Your task to perform on an android device: Search for sushi restaurants on Maps Image 0: 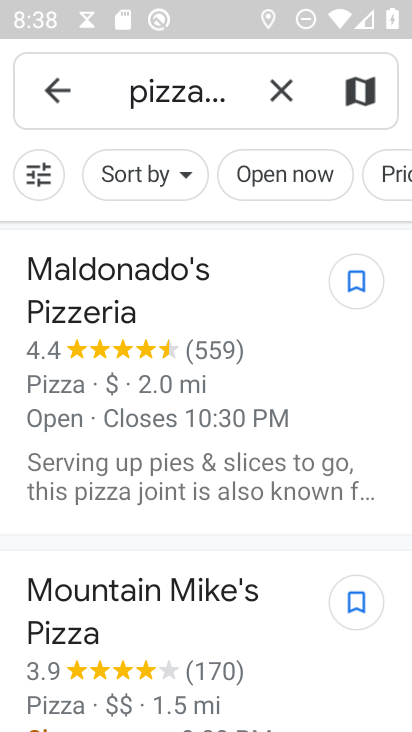
Step 0: click (287, 83)
Your task to perform on an android device: Search for sushi restaurants on Maps Image 1: 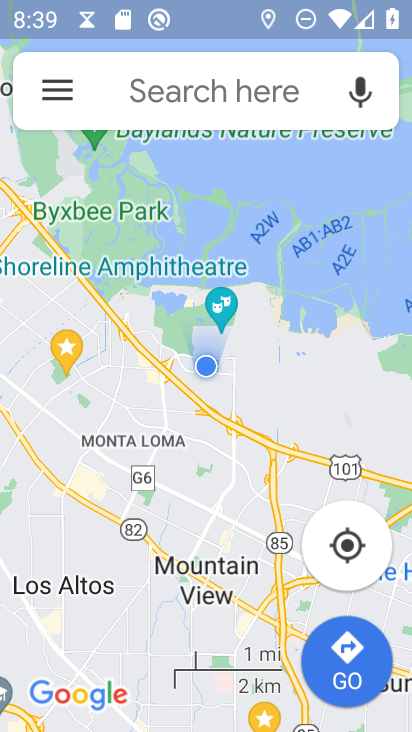
Step 1: click (229, 95)
Your task to perform on an android device: Search for sushi restaurants on Maps Image 2: 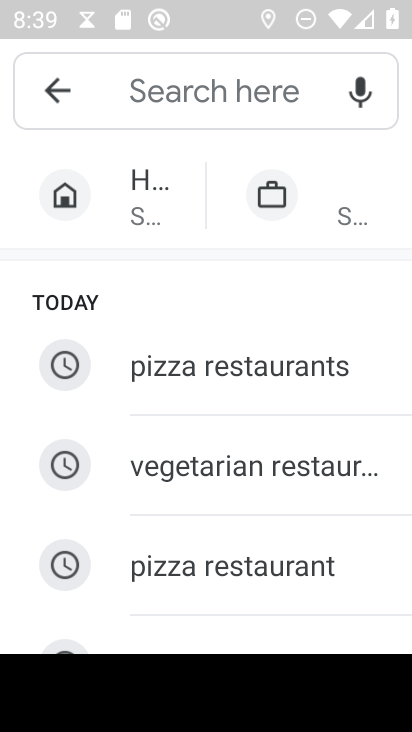
Step 2: type "sushi restaurants"
Your task to perform on an android device: Search for sushi restaurants on Maps Image 3: 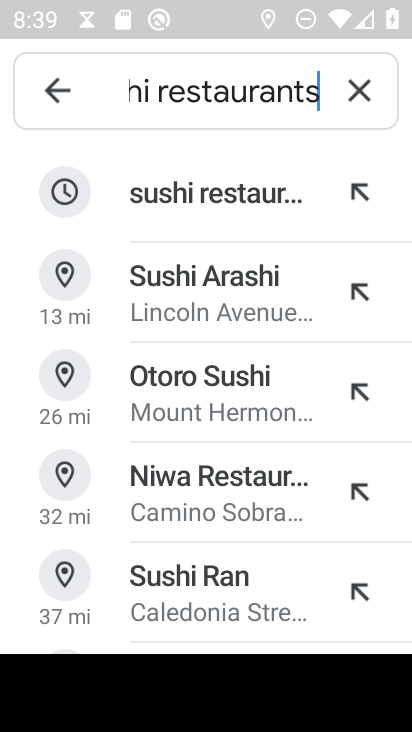
Step 3: click (261, 199)
Your task to perform on an android device: Search for sushi restaurants on Maps Image 4: 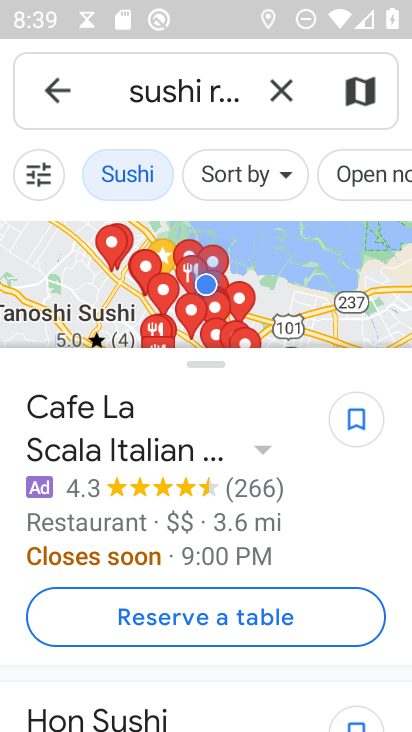
Step 4: task complete